Your task to perform on an android device: find photos in the google photos app Image 0: 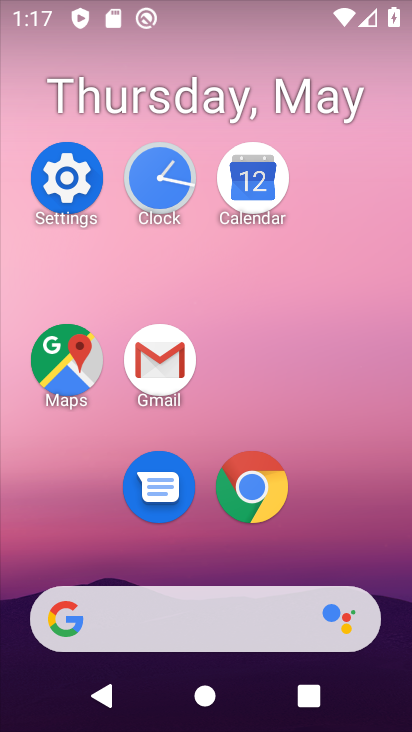
Step 0: drag from (318, 554) to (372, 102)
Your task to perform on an android device: find photos in the google photos app Image 1: 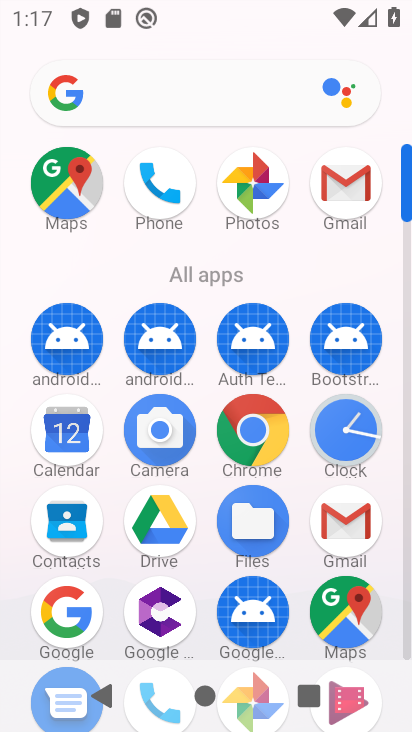
Step 1: drag from (262, 192) to (237, 324)
Your task to perform on an android device: find photos in the google photos app Image 2: 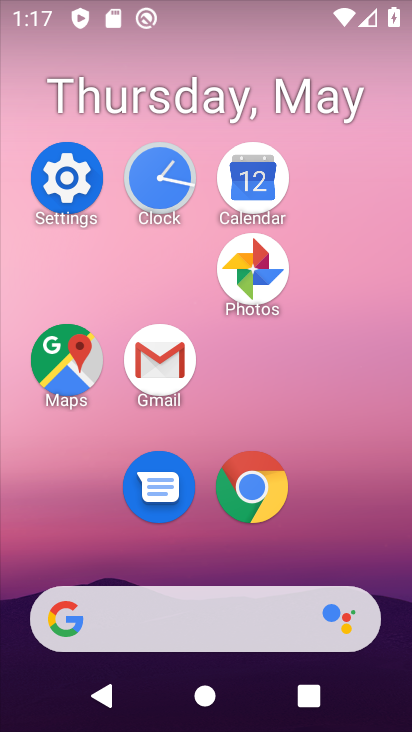
Step 2: click (256, 272)
Your task to perform on an android device: find photos in the google photos app Image 3: 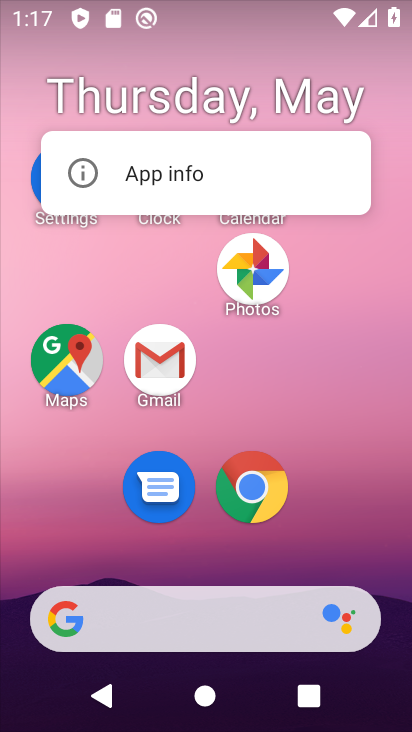
Step 3: click (257, 272)
Your task to perform on an android device: find photos in the google photos app Image 4: 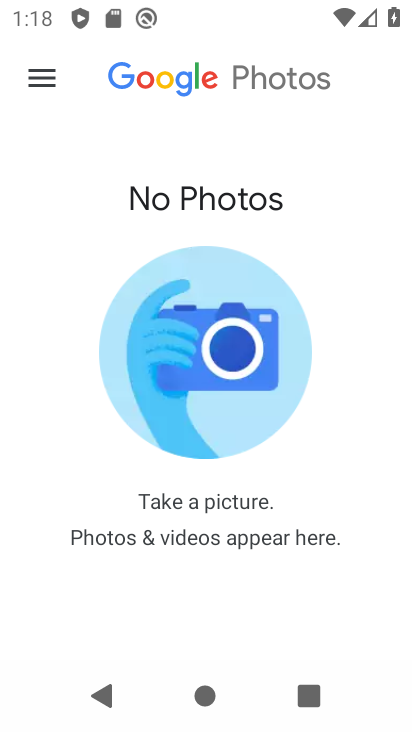
Step 4: click (46, 73)
Your task to perform on an android device: find photos in the google photos app Image 5: 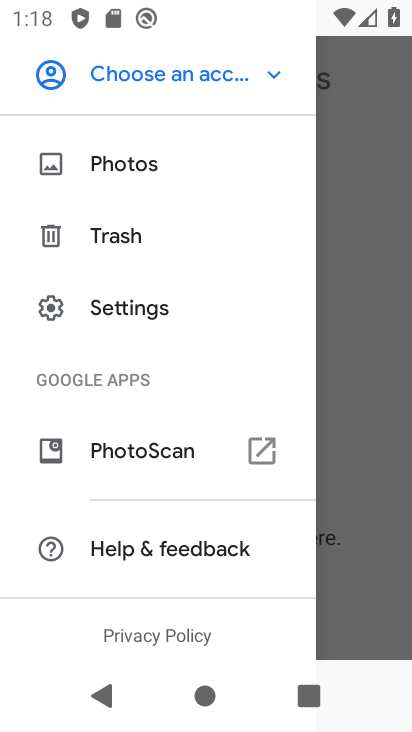
Step 5: click (121, 155)
Your task to perform on an android device: find photos in the google photos app Image 6: 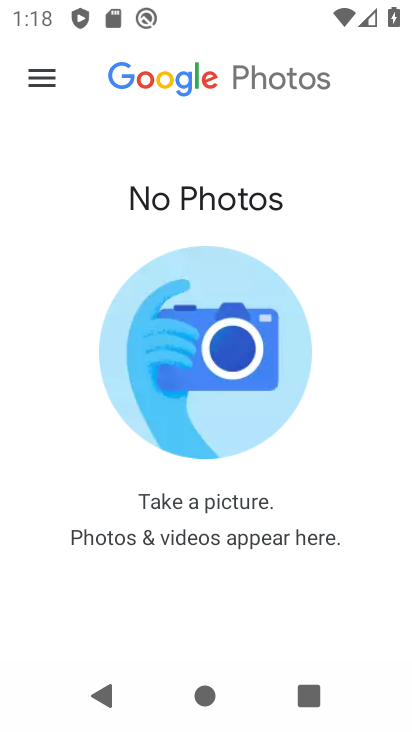
Step 6: task complete